Your task to perform on an android device: Show the shopping cart on amazon. Add amazon basics triple a to the cart on amazon Image 0: 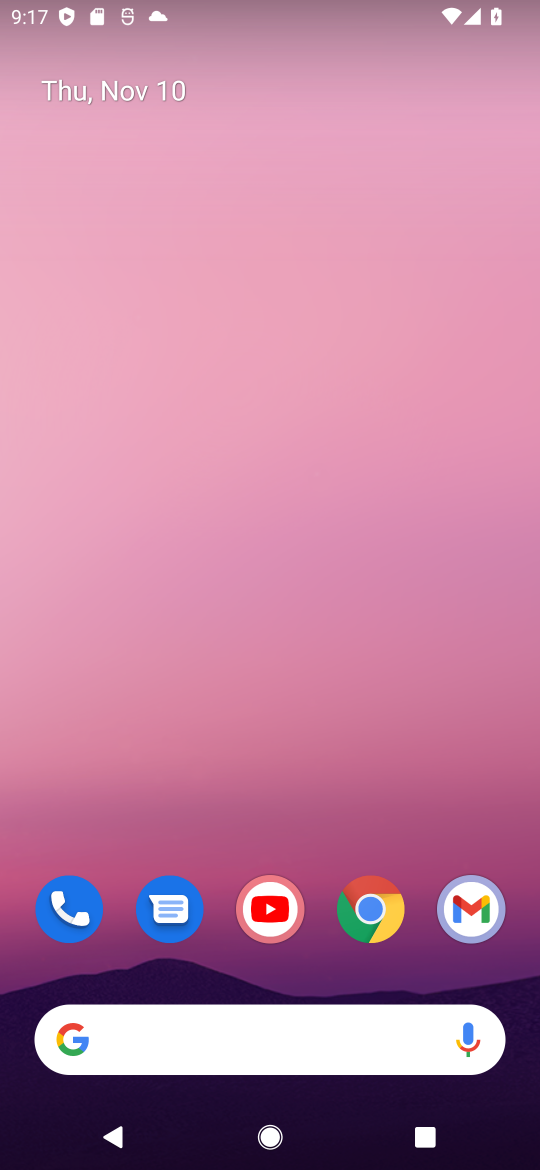
Step 0: drag from (254, 997) to (270, 416)
Your task to perform on an android device: Show the shopping cart on amazon. Add amazon basics triple a to the cart on amazon Image 1: 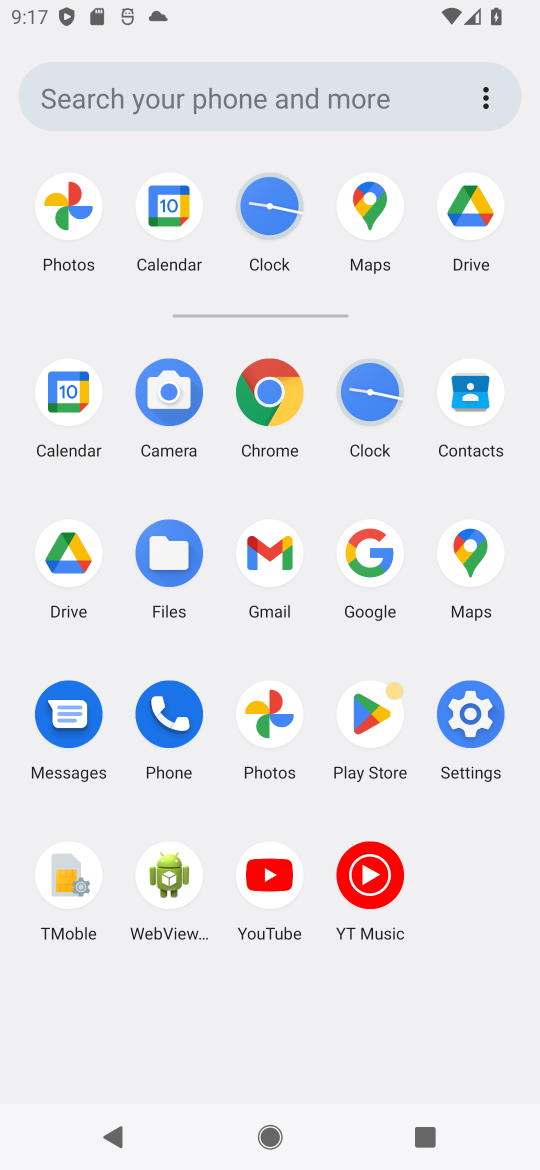
Step 1: click (370, 538)
Your task to perform on an android device: Show the shopping cart on amazon. Add amazon basics triple a to the cart on amazon Image 2: 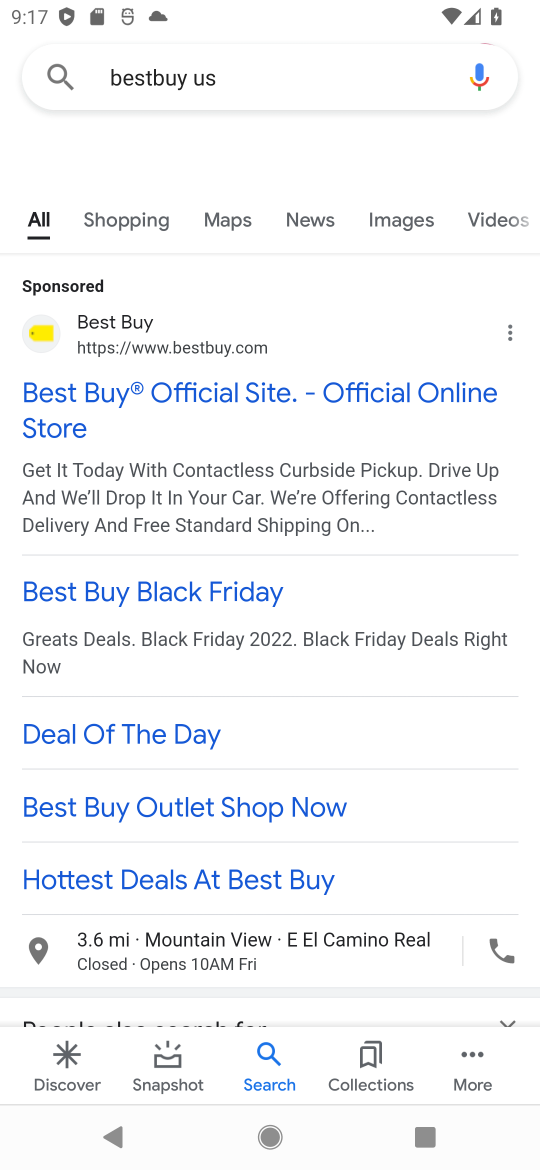
Step 2: click (258, 63)
Your task to perform on an android device: Show the shopping cart on amazon. Add amazon basics triple a to the cart on amazon Image 3: 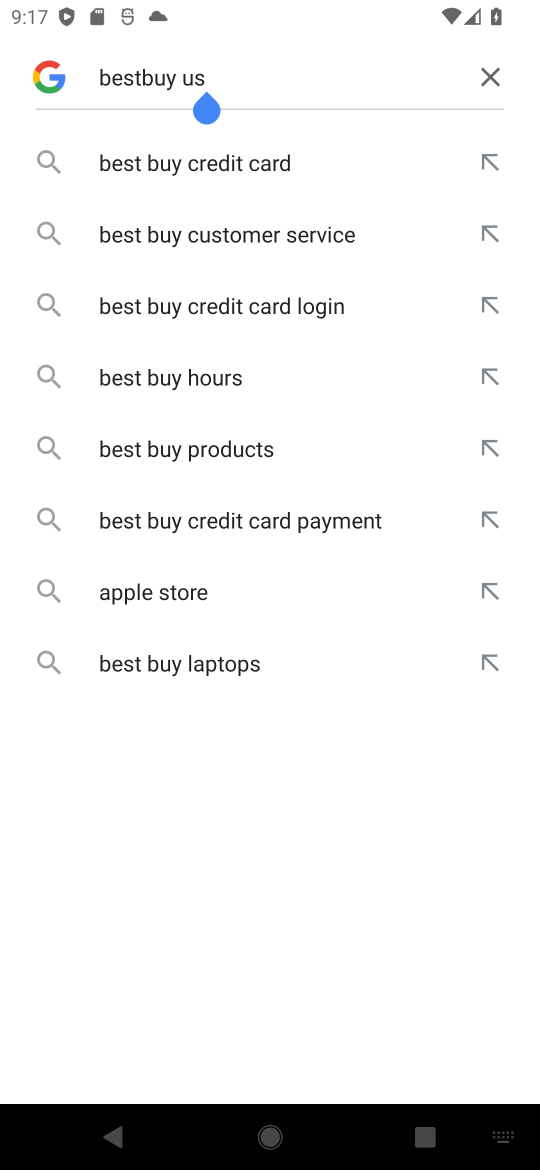
Step 3: click (499, 80)
Your task to perform on an android device: Show the shopping cart on amazon. Add amazon basics triple a to the cart on amazon Image 4: 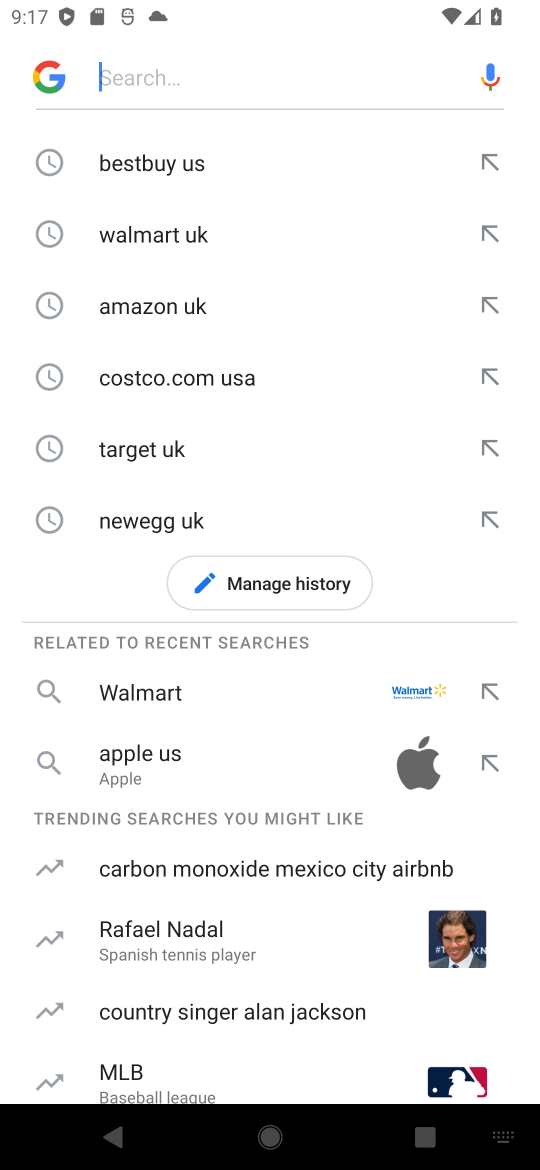
Step 4: click (295, 70)
Your task to perform on an android device: Show the shopping cart on amazon. Add amazon basics triple a to the cart on amazon Image 5: 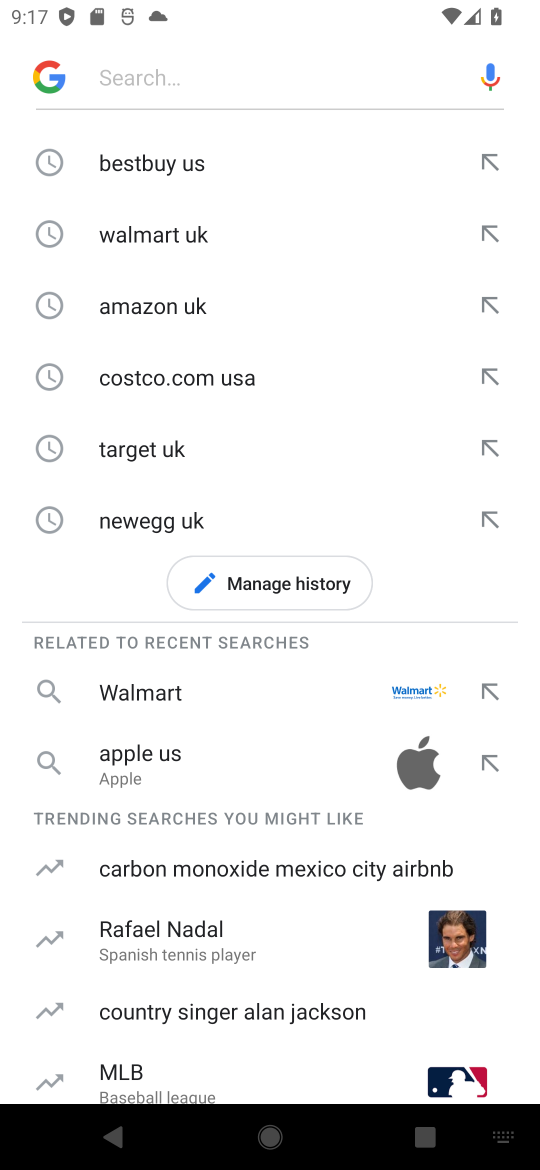
Step 5: type "amazon "
Your task to perform on an android device: Show the shopping cart on amazon. Add amazon basics triple a to the cart on amazon Image 6: 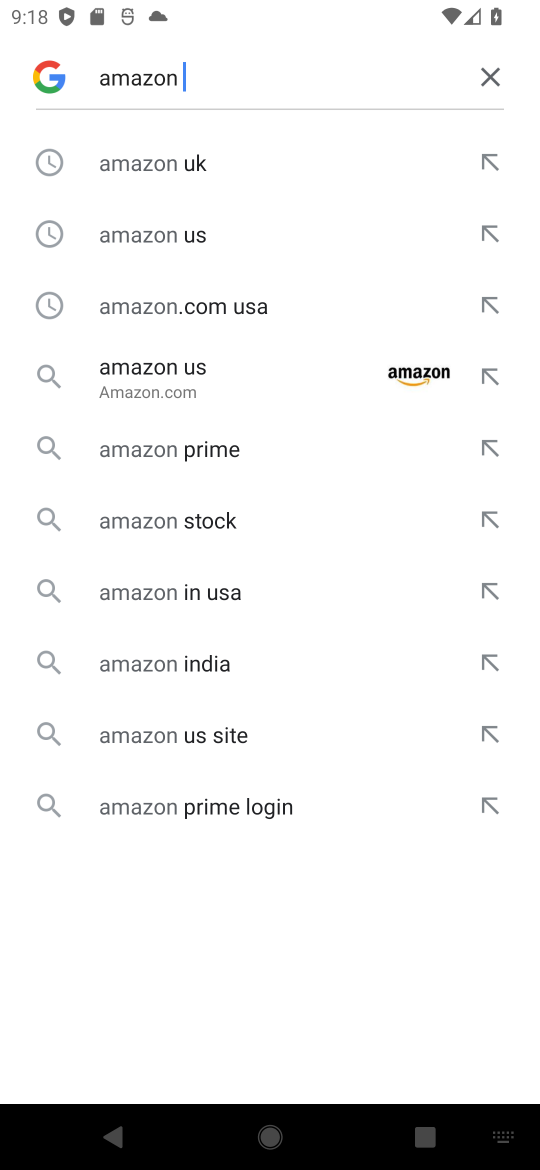
Step 6: click (216, 152)
Your task to perform on an android device: Show the shopping cart on amazon. Add amazon basics triple a to the cart on amazon Image 7: 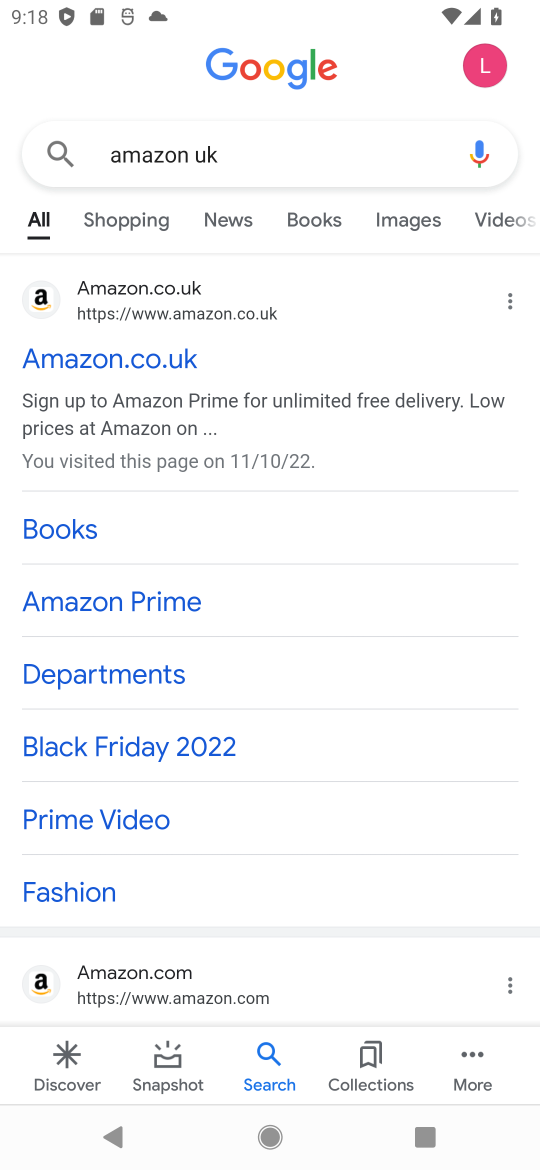
Step 7: click (50, 291)
Your task to perform on an android device: Show the shopping cart on amazon. Add amazon basics triple a to the cart on amazon Image 8: 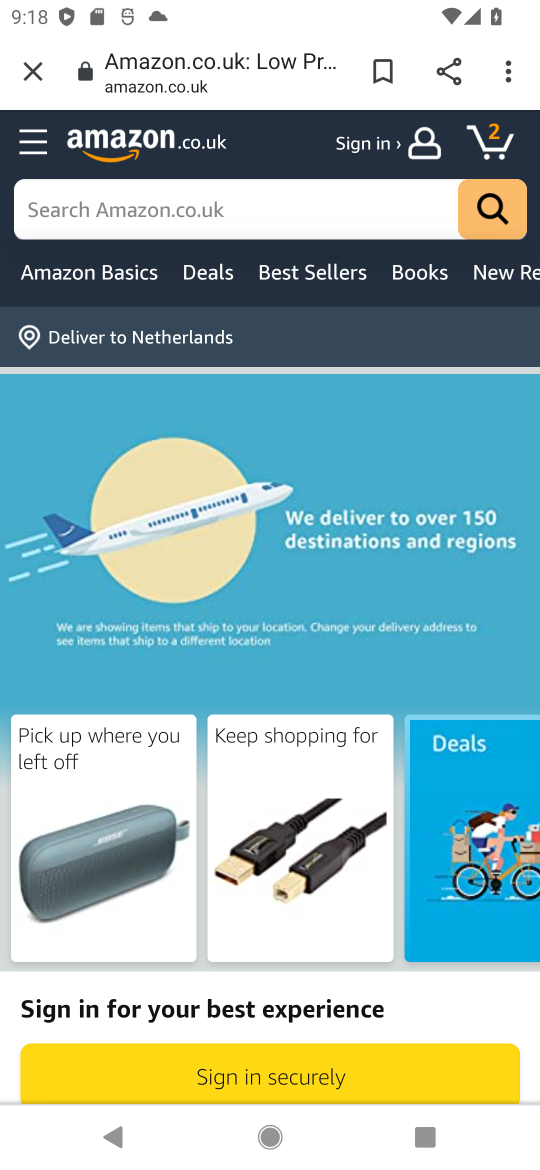
Step 8: click (492, 141)
Your task to perform on an android device: Show the shopping cart on amazon. Add amazon basics triple a to the cart on amazon Image 9: 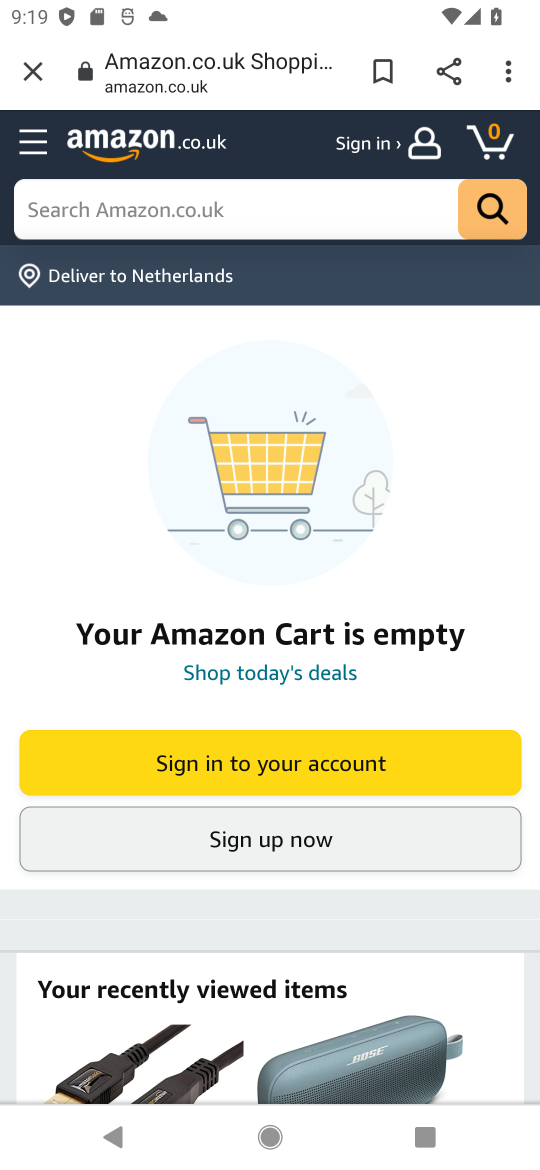
Step 9: task complete